Your task to perform on an android device: open app "PUBG MOBILE" Image 0: 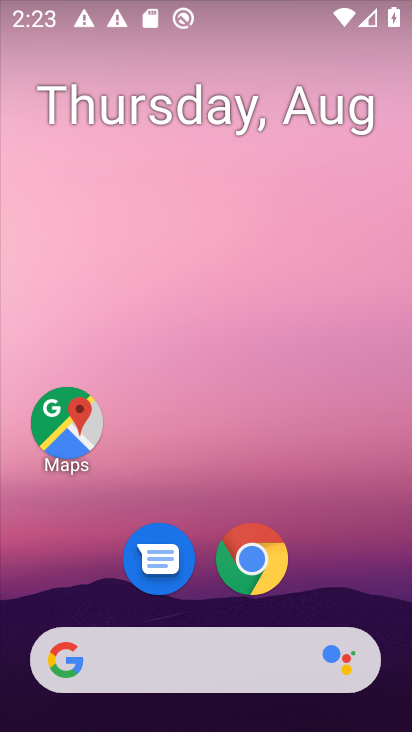
Step 0: drag from (83, 565) to (141, 95)
Your task to perform on an android device: open app "PUBG MOBILE" Image 1: 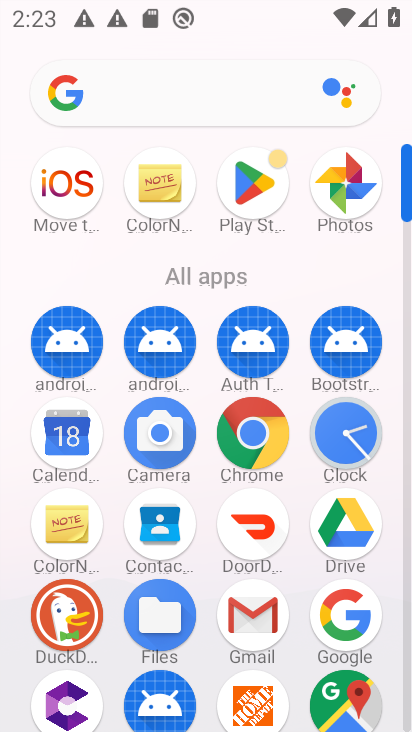
Step 1: click (261, 184)
Your task to perform on an android device: open app "PUBG MOBILE" Image 2: 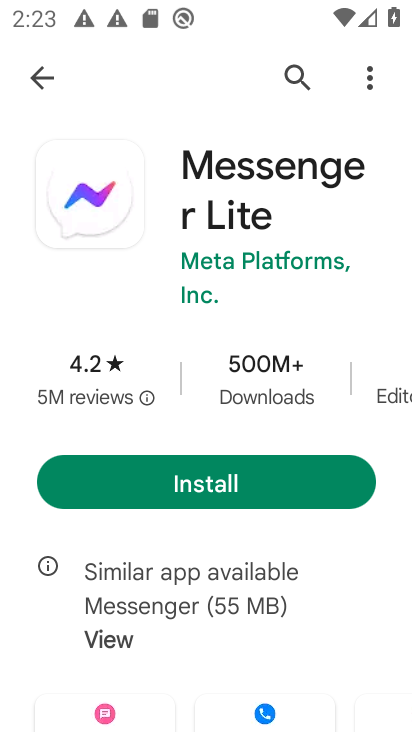
Step 2: click (306, 64)
Your task to perform on an android device: open app "PUBG MOBILE" Image 3: 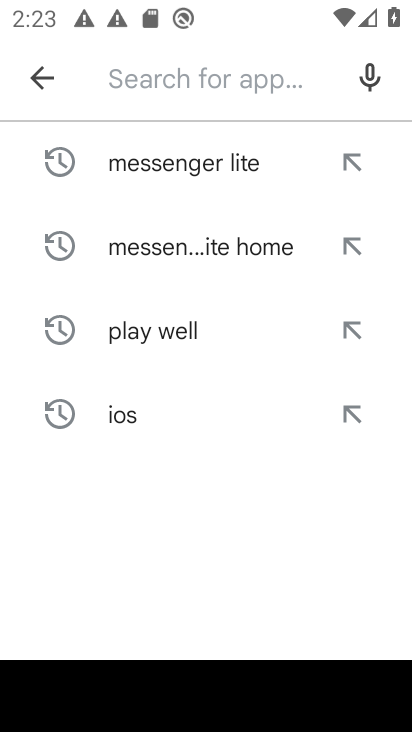
Step 3: click (227, 91)
Your task to perform on an android device: open app "PUBG MOBILE" Image 4: 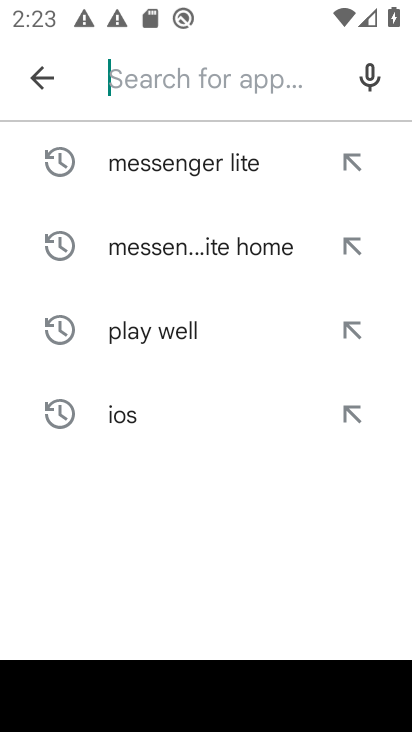
Step 4: type "pubg mobile"
Your task to perform on an android device: open app "PUBG MOBILE" Image 5: 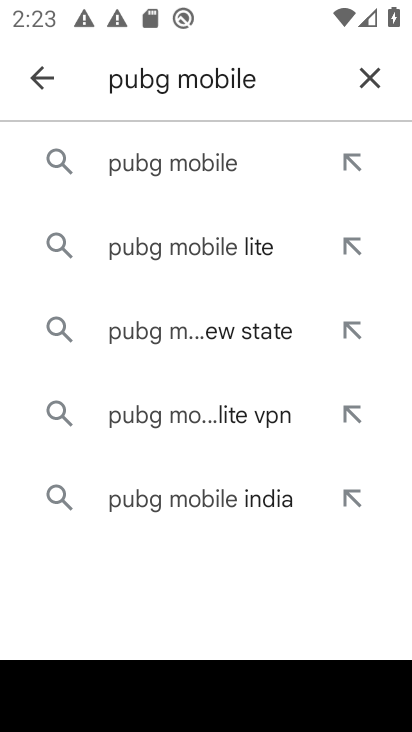
Step 5: click (145, 167)
Your task to perform on an android device: open app "PUBG MOBILE" Image 6: 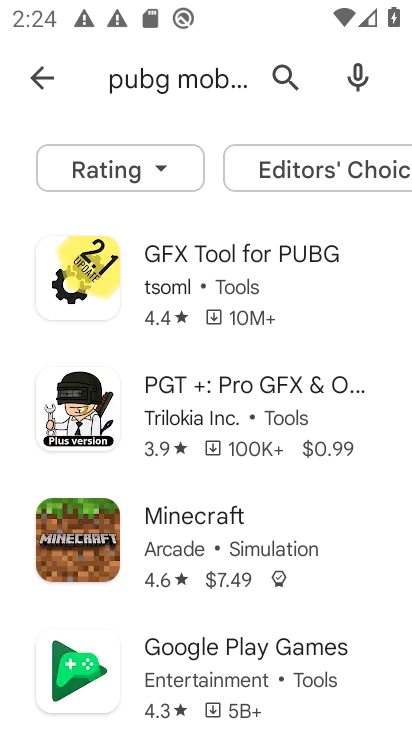
Step 6: task complete